Your task to perform on an android device: open chrome privacy settings Image 0: 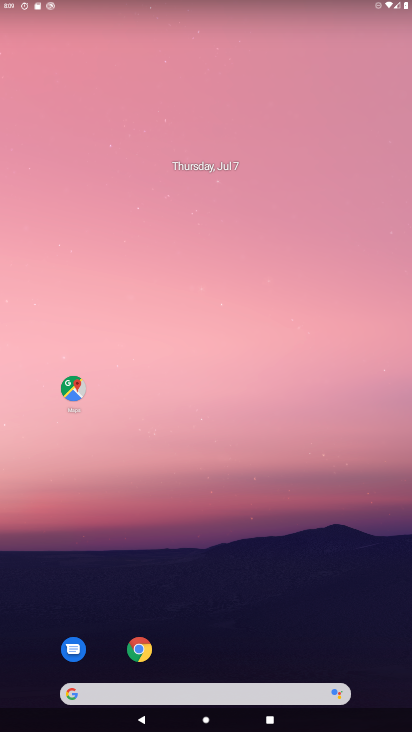
Step 0: drag from (216, 664) to (223, 52)
Your task to perform on an android device: open chrome privacy settings Image 1: 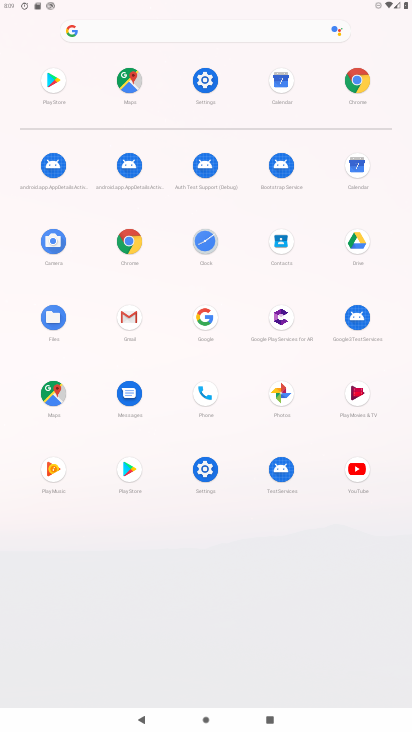
Step 1: click (351, 78)
Your task to perform on an android device: open chrome privacy settings Image 2: 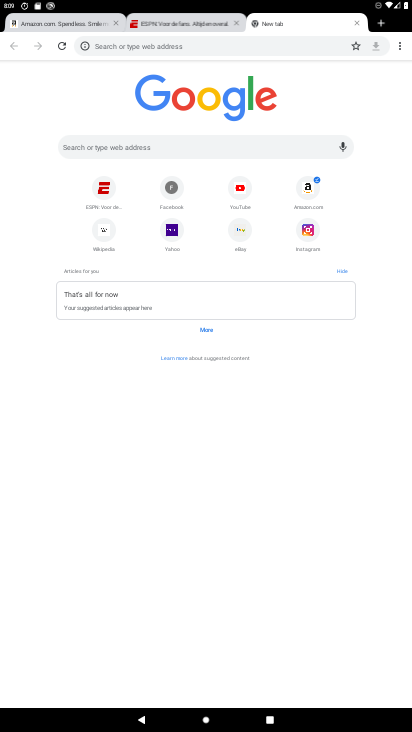
Step 2: click (403, 43)
Your task to perform on an android device: open chrome privacy settings Image 3: 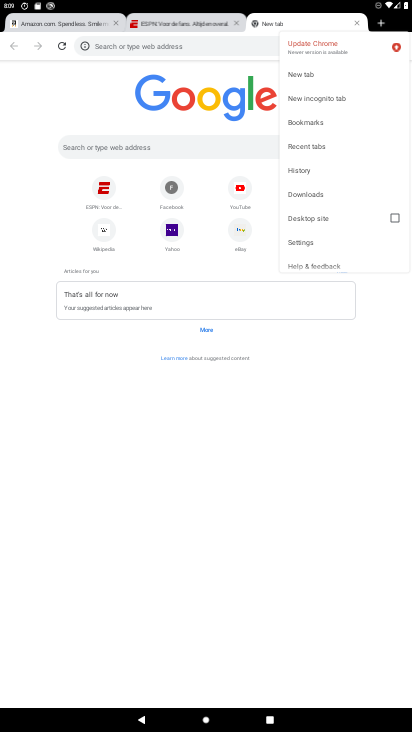
Step 3: click (322, 243)
Your task to perform on an android device: open chrome privacy settings Image 4: 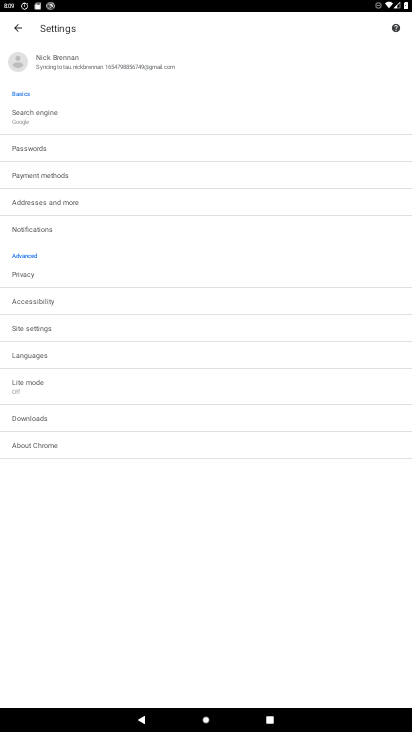
Step 4: click (39, 274)
Your task to perform on an android device: open chrome privacy settings Image 5: 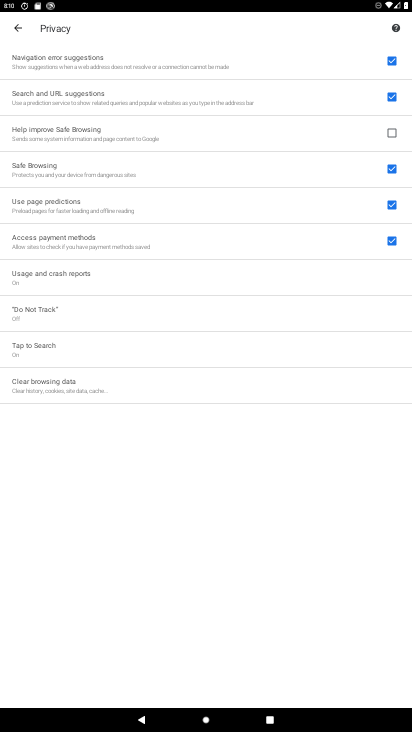
Step 5: task complete